Your task to perform on an android device: change the clock display to digital Image 0: 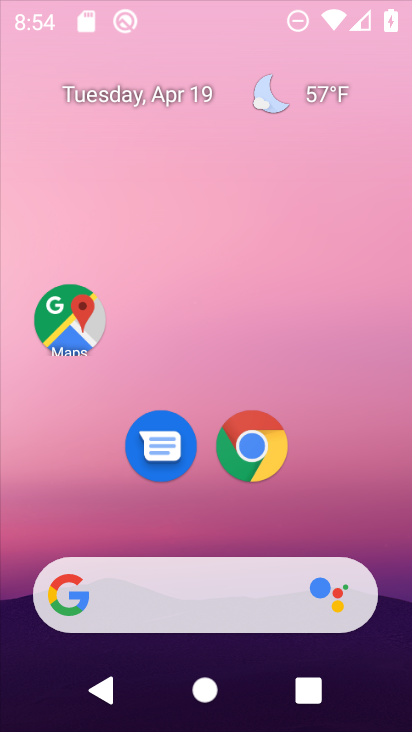
Step 0: click (54, 318)
Your task to perform on an android device: change the clock display to digital Image 1: 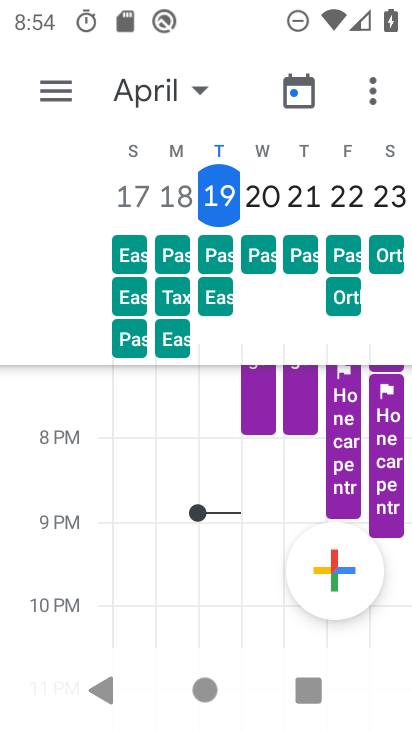
Step 1: press home button
Your task to perform on an android device: change the clock display to digital Image 2: 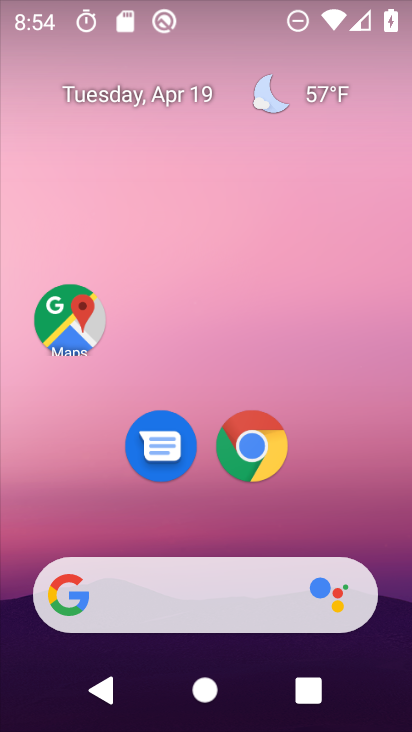
Step 2: drag from (318, 542) to (291, 46)
Your task to perform on an android device: change the clock display to digital Image 3: 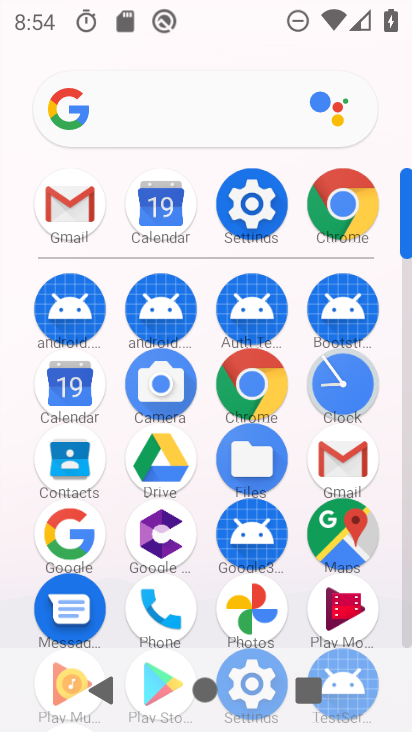
Step 3: click (351, 381)
Your task to perform on an android device: change the clock display to digital Image 4: 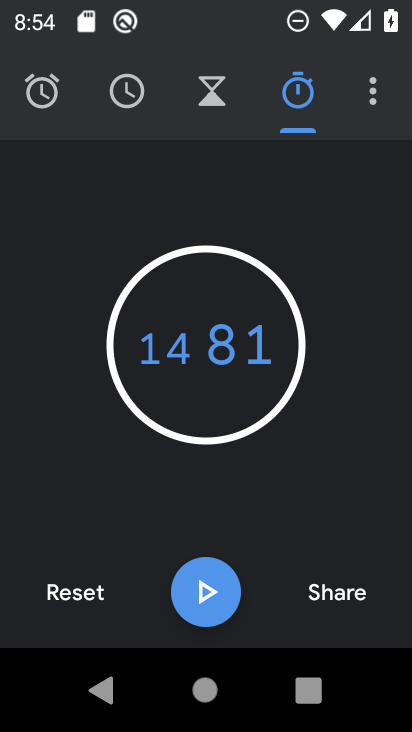
Step 4: click (369, 93)
Your task to perform on an android device: change the clock display to digital Image 5: 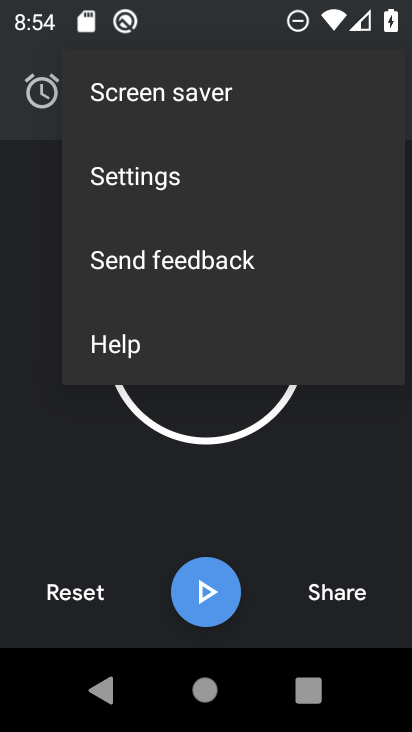
Step 5: click (139, 176)
Your task to perform on an android device: change the clock display to digital Image 6: 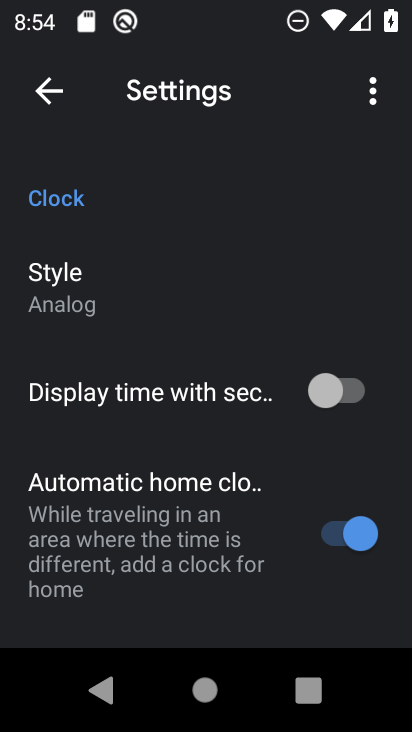
Step 6: click (79, 304)
Your task to perform on an android device: change the clock display to digital Image 7: 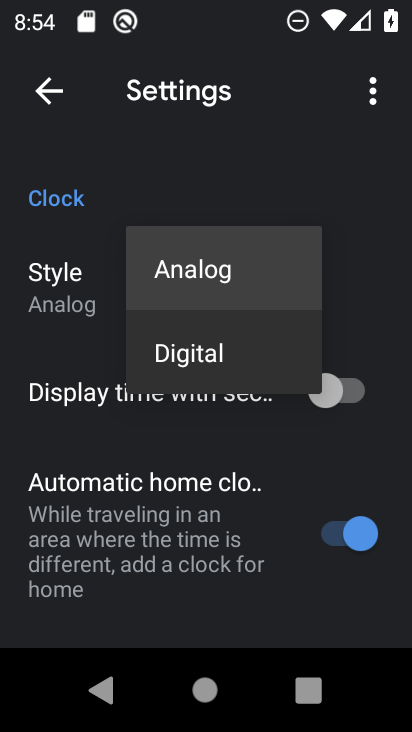
Step 7: click (178, 356)
Your task to perform on an android device: change the clock display to digital Image 8: 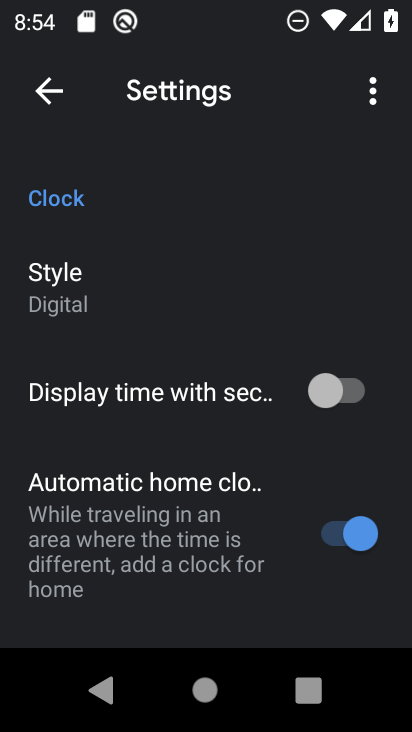
Step 8: task complete